Your task to perform on an android device: open chrome and create a bookmark for the current page Image 0: 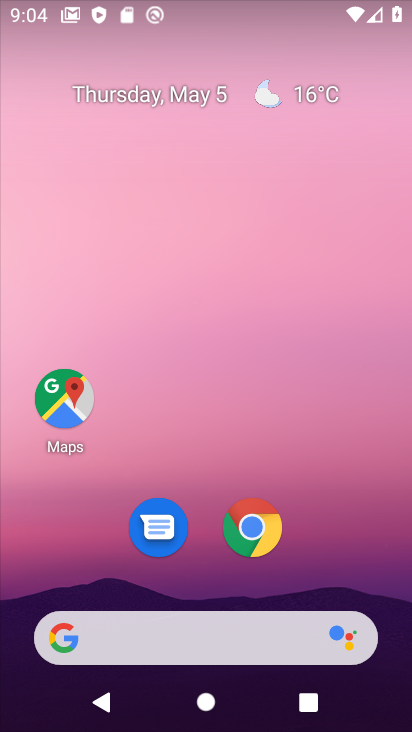
Step 0: press home button
Your task to perform on an android device: open chrome and create a bookmark for the current page Image 1: 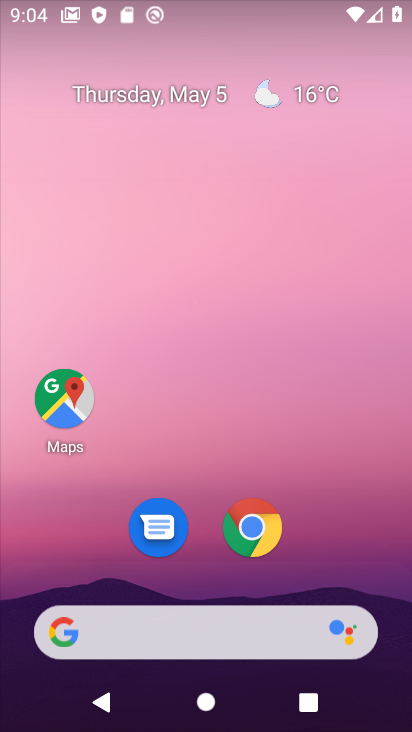
Step 1: click (251, 519)
Your task to perform on an android device: open chrome and create a bookmark for the current page Image 2: 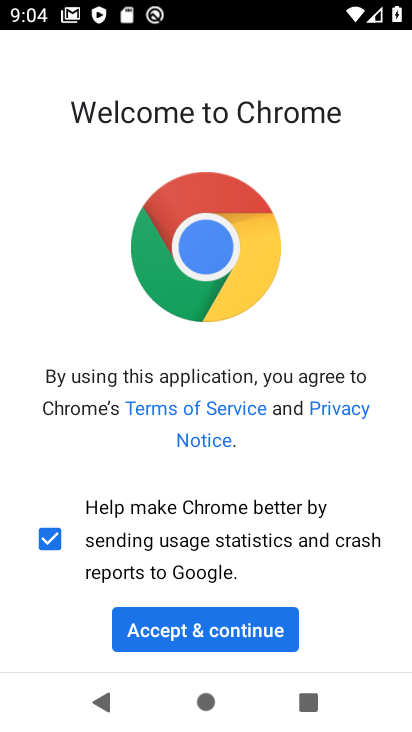
Step 2: click (195, 626)
Your task to perform on an android device: open chrome and create a bookmark for the current page Image 3: 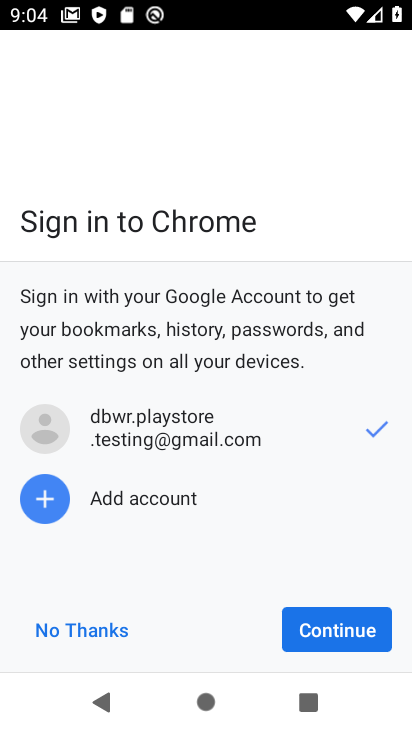
Step 3: click (343, 627)
Your task to perform on an android device: open chrome and create a bookmark for the current page Image 4: 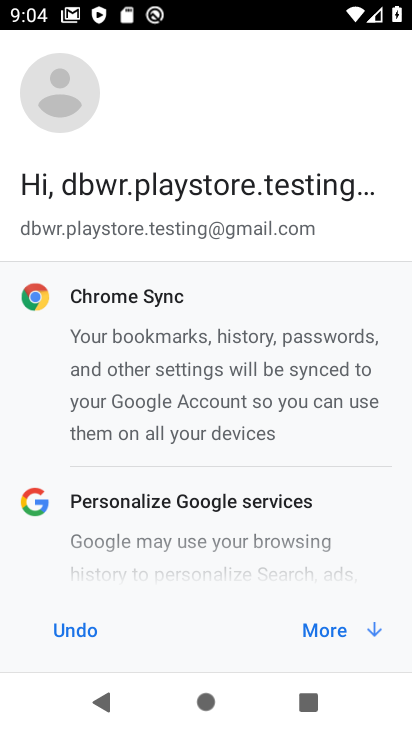
Step 4: click (337, 627)
Your task to perform on an android device: open chrome and create a bookmark for the current page Image 5: 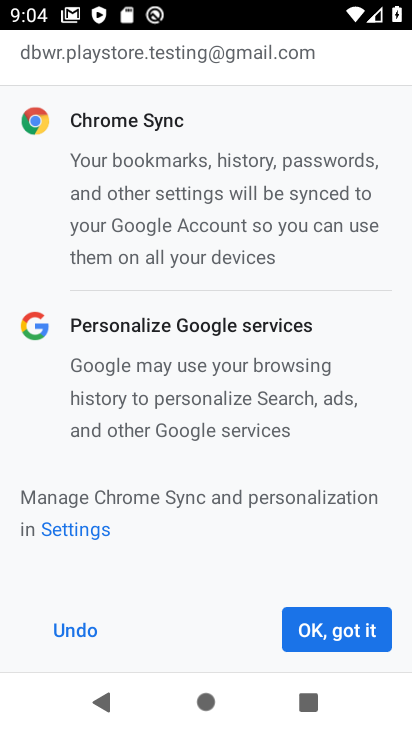
Step 5: click (338, 628)
Your task to perform on an android device: open chrome and create a bookmark for the current page Image 6: 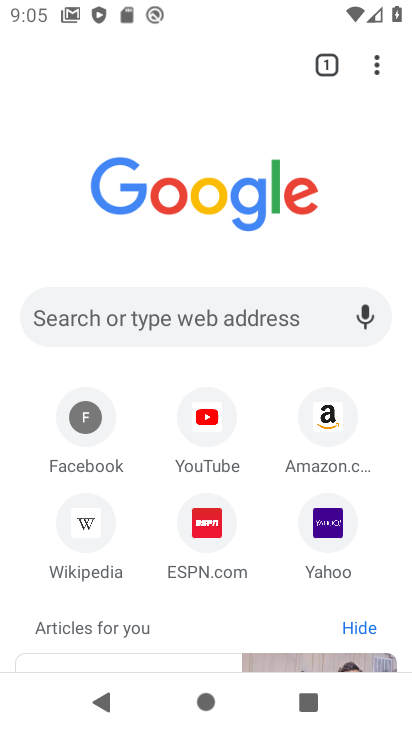
Step 6: click (139, 312)
Your task to perform on an android device: open chrome and create a bookmark for the current page Image 7: 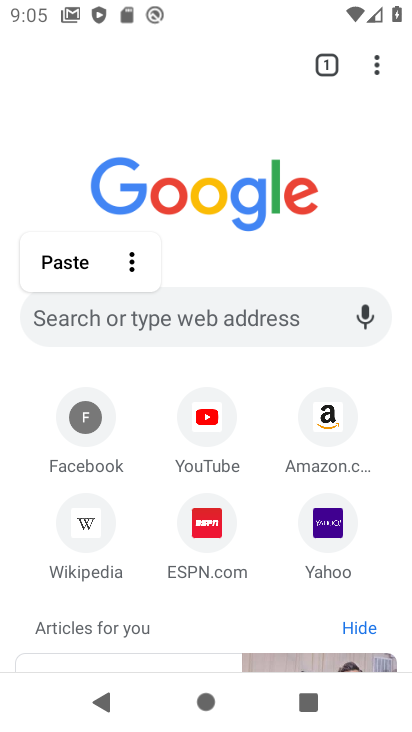
Step 7: click (113, 316)
Your task to perform on an android device: open chrome and create a bookmark for the current page Image 8: 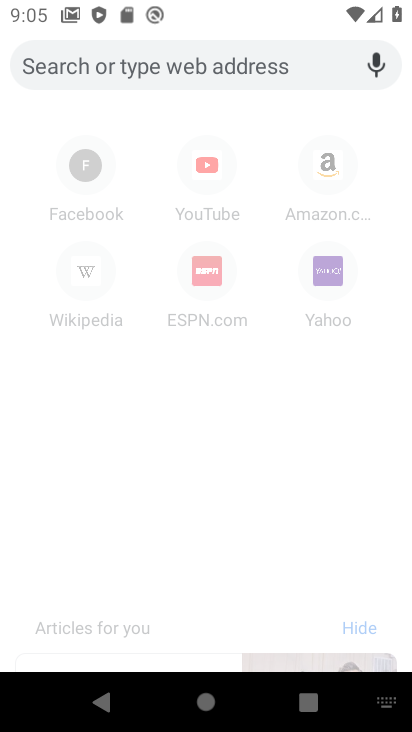
Step 8: type "dreams"
Your task to perform on an android device: open chrome and create a bookmark for the current page Image 9: 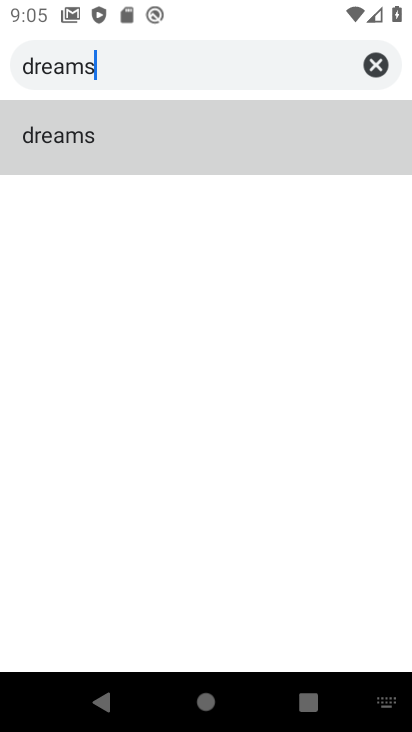
Step 9: click (91, 151)
Your task to perform on an android device: open chrome and create a bookmark for the current page Image 10: 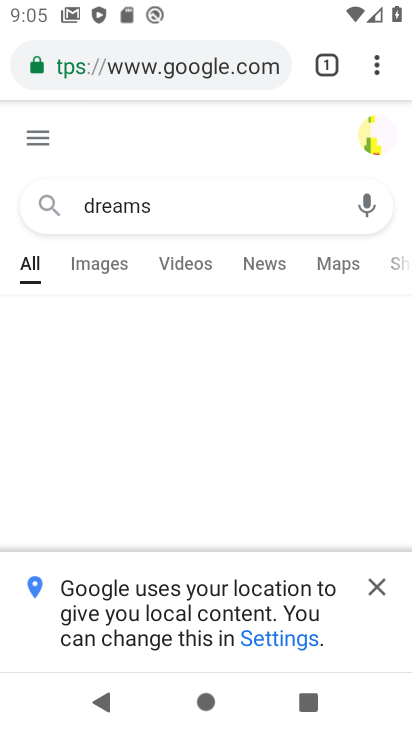
Step 10: click (374, 591)
Your task to perform on an android device: open chrome and create a bookmark for the current page Image 11: 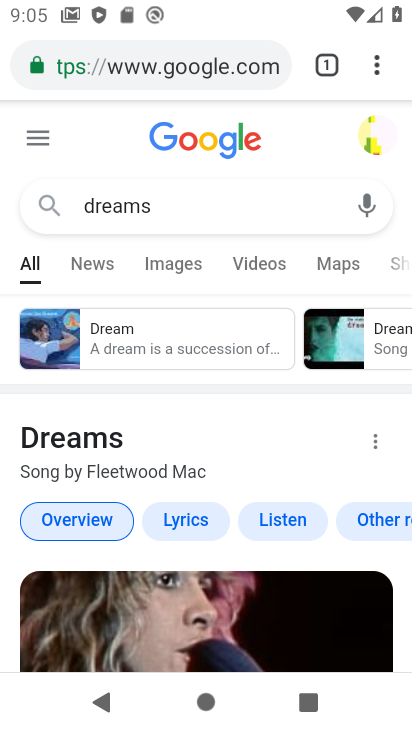
Step 11: drag from (207, 583) to (211, 275)
Your task to perform on an android device: open chrome and create a bookmark for the current page Image 12: 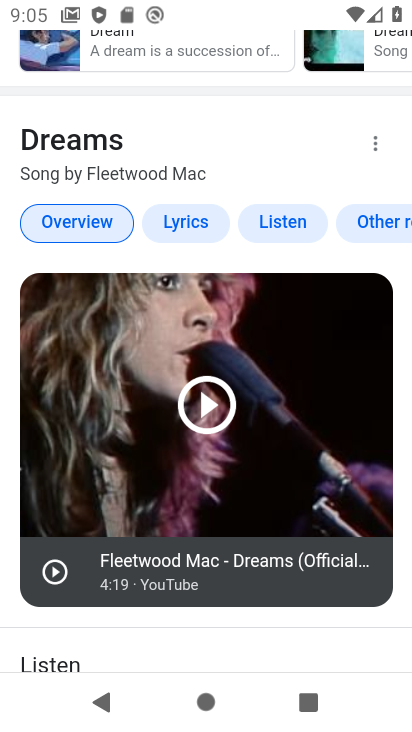
Step 12: drag from (158, 623) to (161, 123)
Your task to perform on an android device: open chrome and create a bookmark for the current page Image 13: 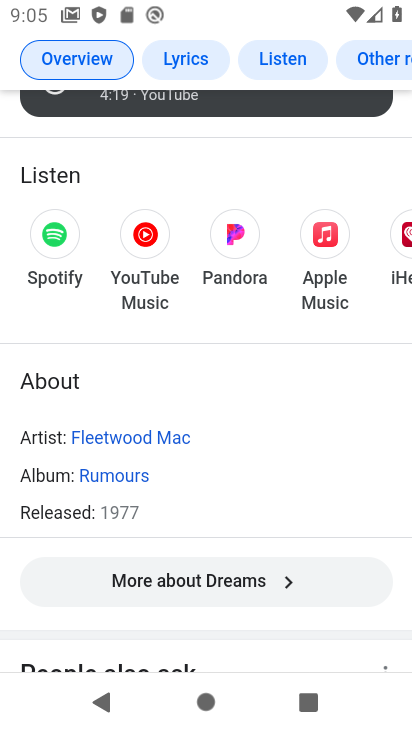
Step 13: drag from (205, 166) to (242, 466)
Your task to perform on an android device: open chrome and create a bookmark for the current page Image 14: 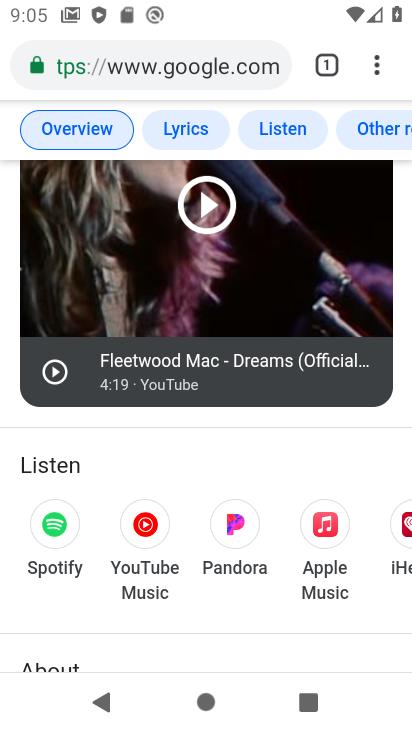
Step 14: click (375, 64)
Your task to perform on an android device: open chrome and create a bookmark for the current page Image 15: 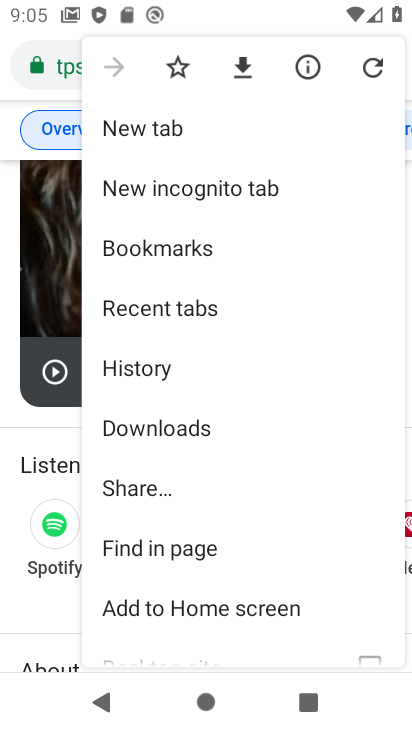
Step 15: click (173, 57)
Your task to perform on an android device: open chrome and create a bookmark for the current page Image 16: 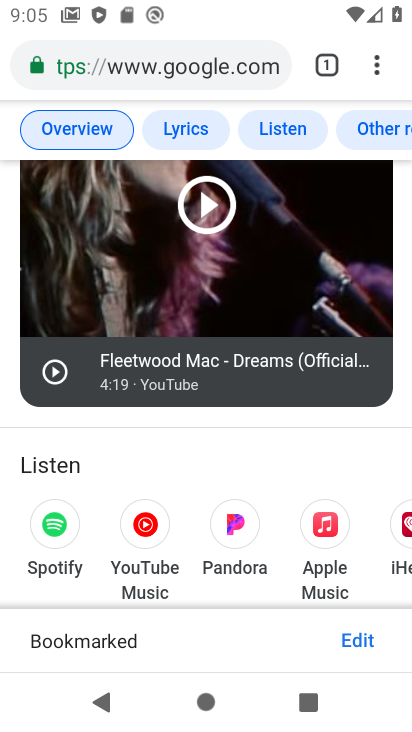
Step 16: task complete